Your task to perform on an android device: Open calendar and show me the third week of next month Image 0: 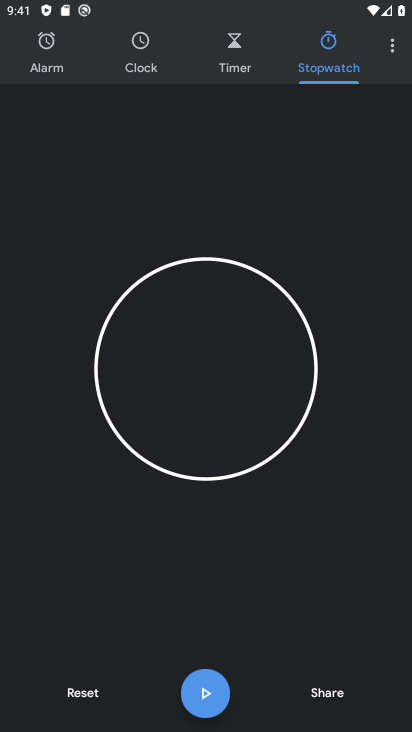
Step 0: press home button
Your task to perform on an android device: Open calendar and show me the third week of next month Image 1: 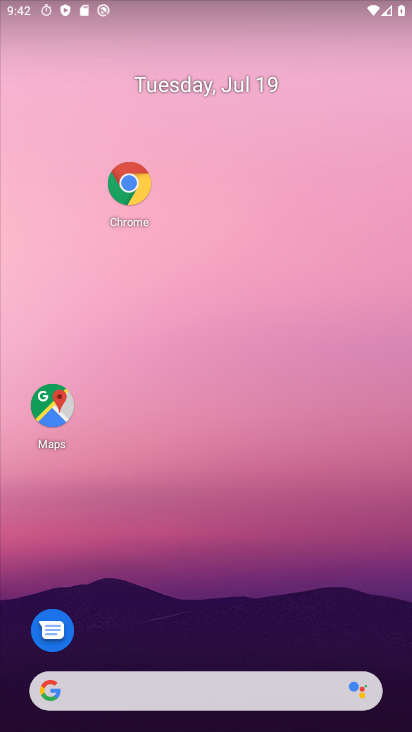
Step 1: drag from (205, 665) to (231, 22)
Your task to perform on an android device: Open calendar and show me the third week of next month Image 2: 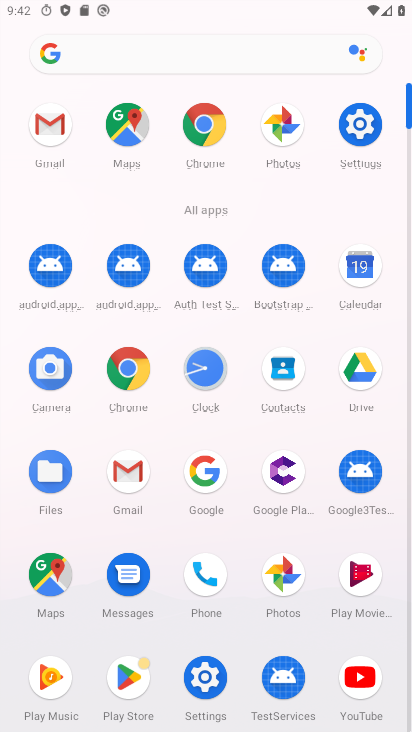
Step 2: click (361, 259)
Your task to perform on an android device: Open calendar and show me the third week of next month Image 3: 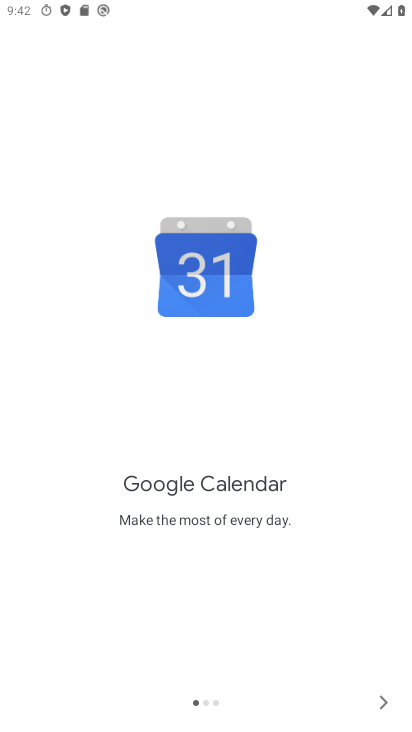
Step 3: click (374, 699)
Your task to perform on an android device: Open calendar and show me the third week of next month Image 4: 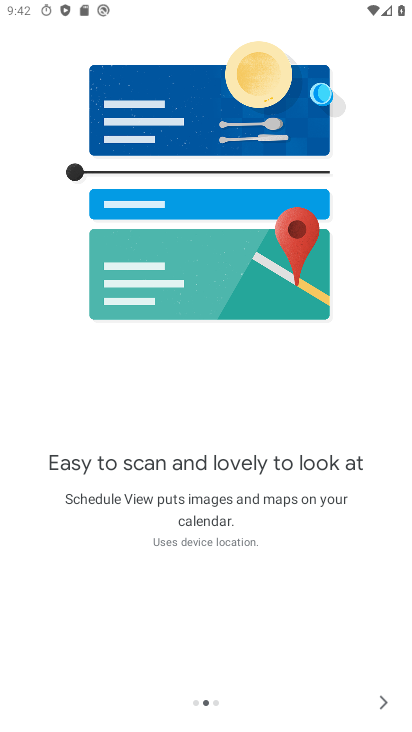
Step 4: click (374, 699)
Your task to perform on an android device: Open calendar and show me the third week of next month Image 5: 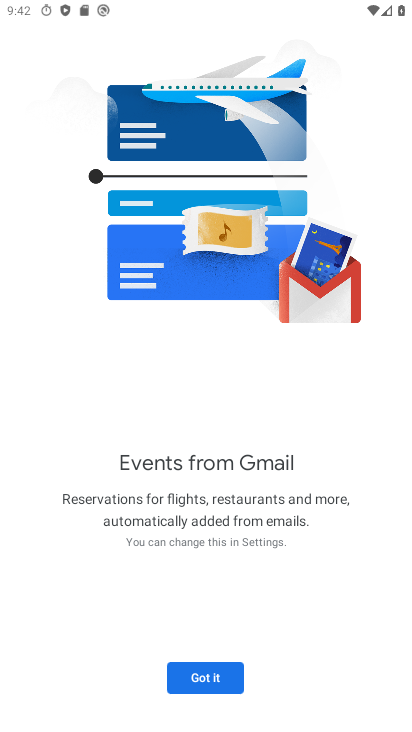
Step 5: click (217, 683)
Your task to perform on an android device: Open calendar and show me the third week of next month Image 6: 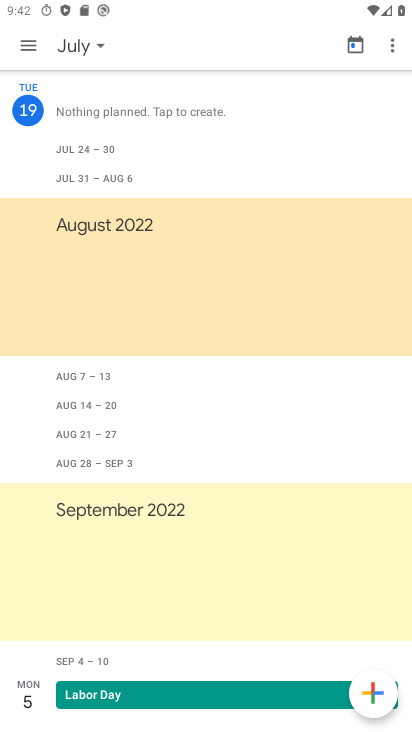
Step 6: click (22, 55)
Your task to perform on an android device: Open calendar and show me the third week of next month Image 7: 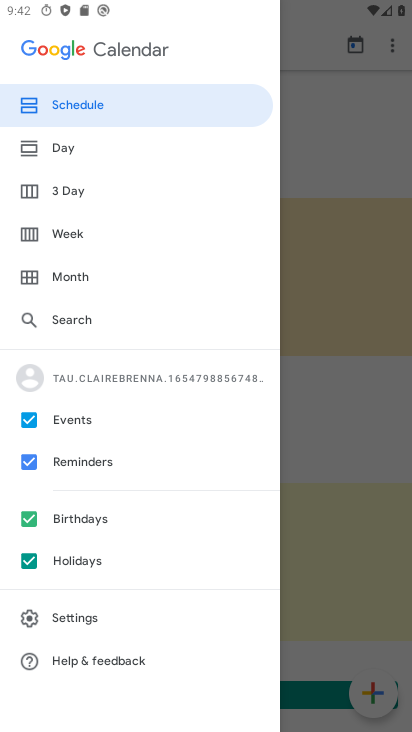
Step 7: click (86, 236)
Your task to perform on an android device: Open calendar and show me the third week of next month Image 8: 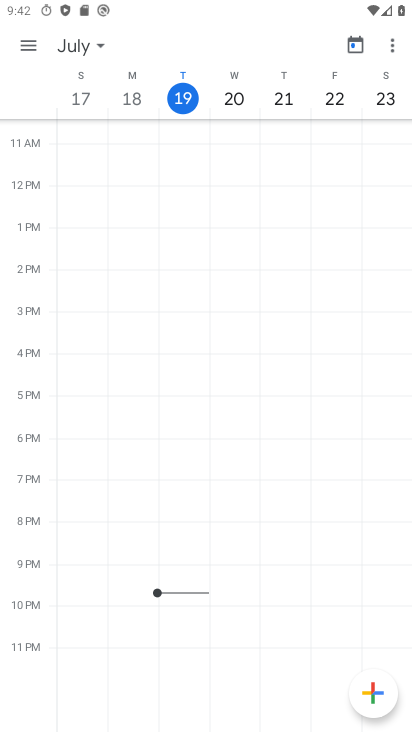
Step 8: task complete